Your task to perform on an android device: Open the map Image 0: 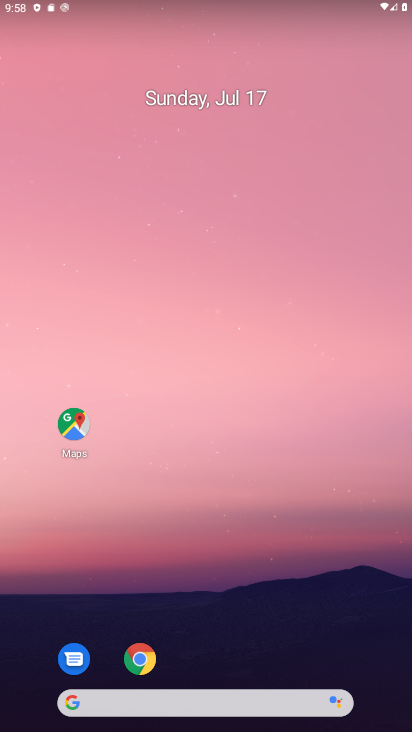
Step 0: click (83, 427)
Your task to perform on an android device: Open the map Image 1: 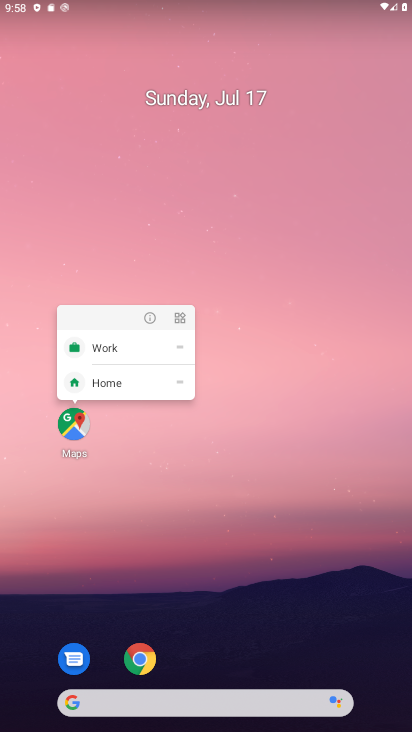
Step 1: click (82, 423)
Your task to perform on an android device: Open the map Image 2: 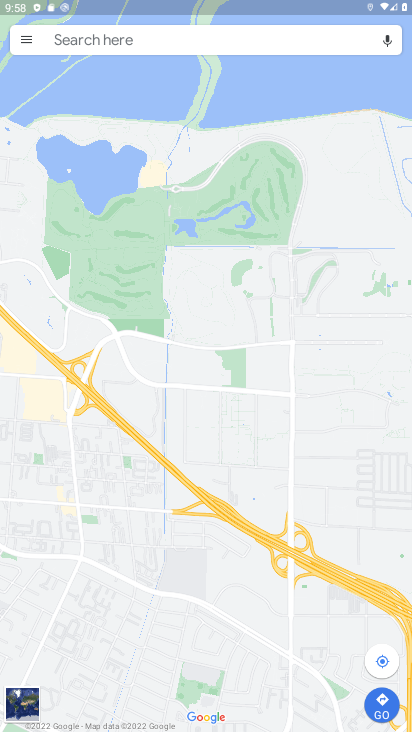
Step 2: task complete